Your task to perform on an android device: Open Reddit.com Image 0: 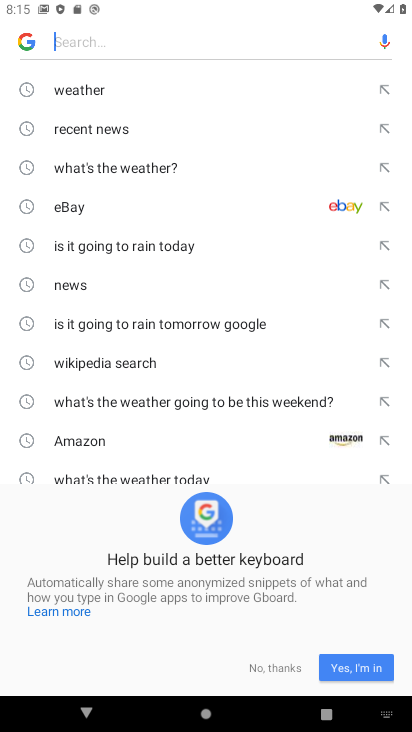
Step 0: press home button
Your task to perform on an android device: Open Reddit.com Image 1: 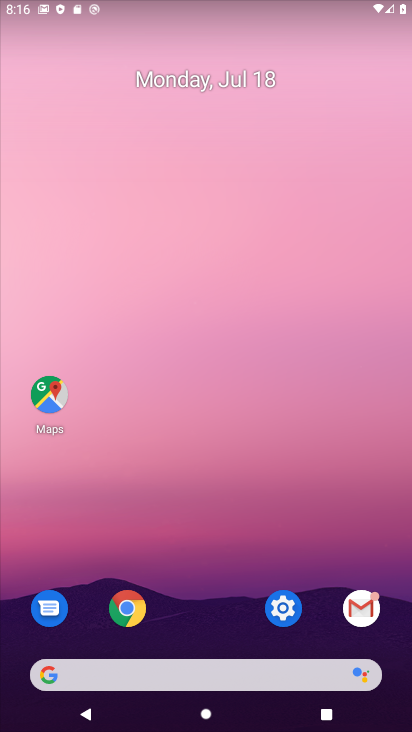
Step 1: drag from (253, 679) to (203, 115)
Your task to perform on an android device: Open Reddit.com Image 2: 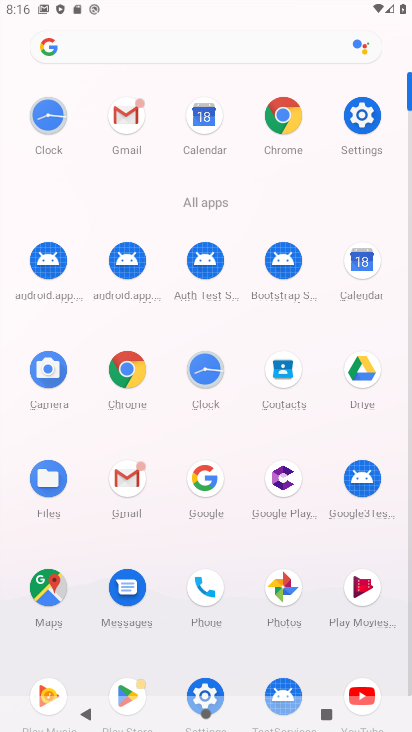
Step 2: click (276, 115)
Your task to perform on an android device: Open Reddit.com Image 3: 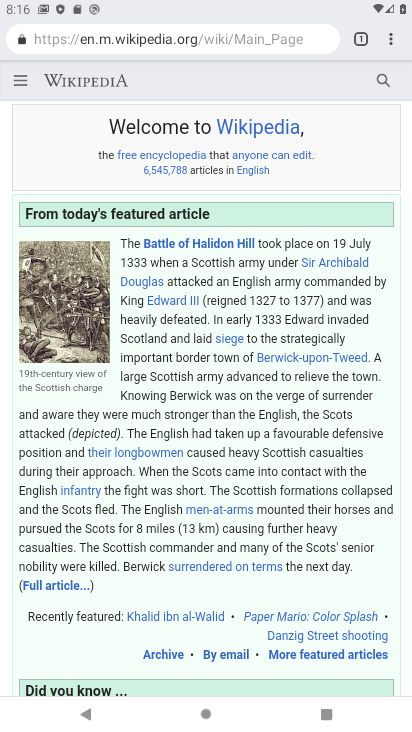
Step 3: click (153, 35)
Your task to perform on an android device: Open Reddit.com Image 4: 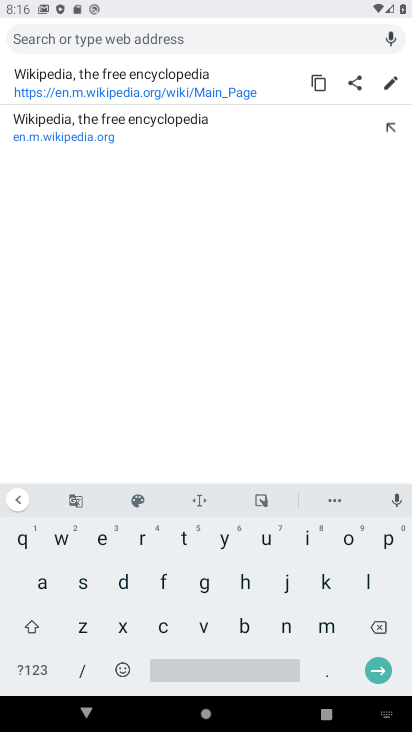
Step 4: click (144, 540)
Your task to perform on an android device: Open Reddit.com Image 5: 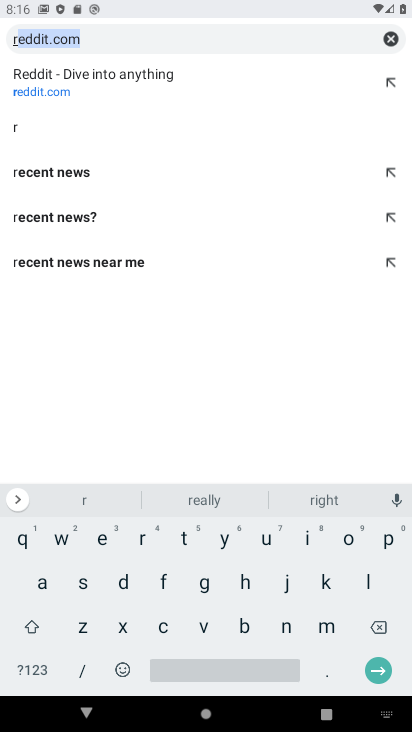
Step 5: click (104, 540)
Your task to perform on an android device: Open Reddit.com Image 6: 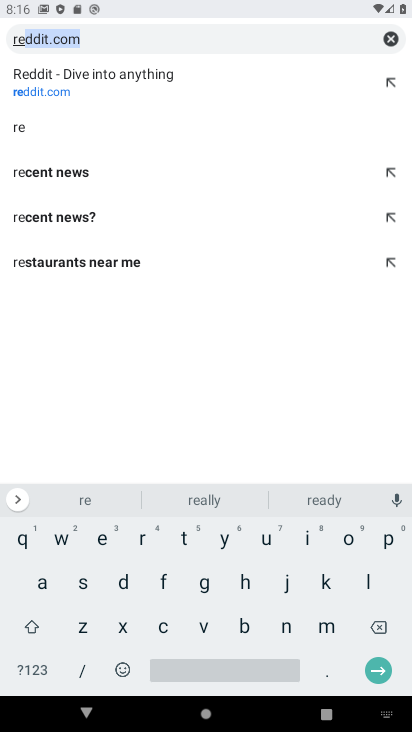
Step 6: click (116, 38)
Your task to perform on an android device: Open Reddit.com Image 7: 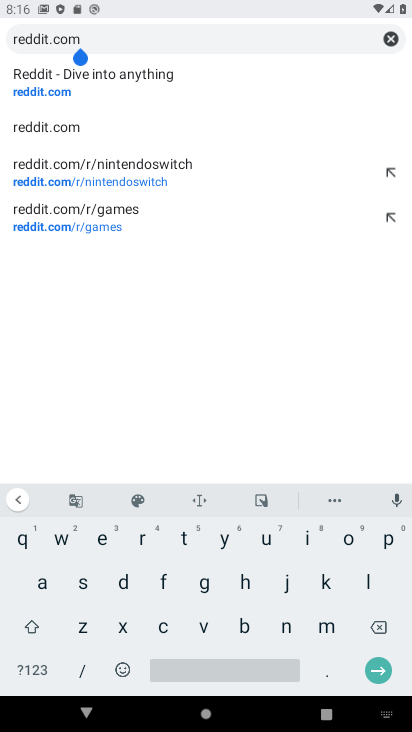
Step 7: click (381, 671)
Your task to perform on an android device: Open Reddit.com Image 8: 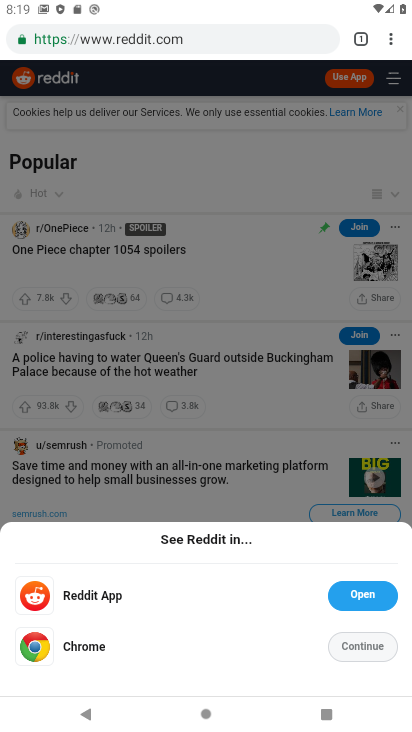
Step 8: task complete